Your task to perform on an android device: Go to calendar. Show me events next week Image 0: 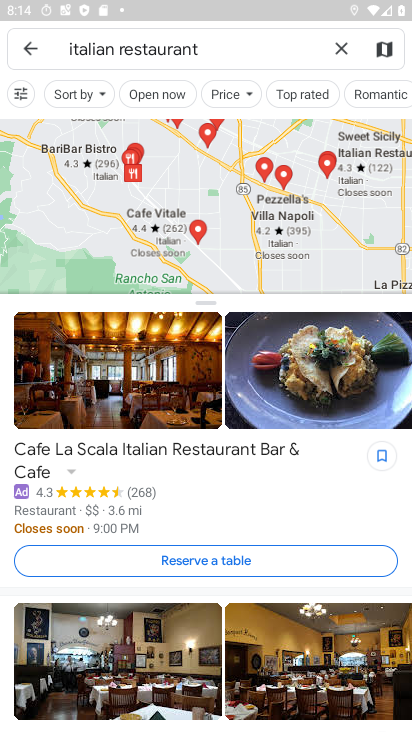
Step 0: press home button
Your task to perform on an android device: Go to calendar. Show me events next week Image 1: 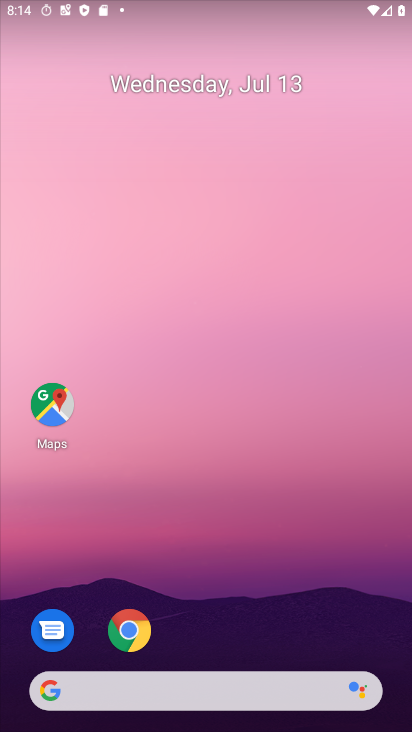
Step 1: drag from (353, 625) to (354, 129)
Your task to perform on an android device: Go to calendar. Show me events next week Image 2: 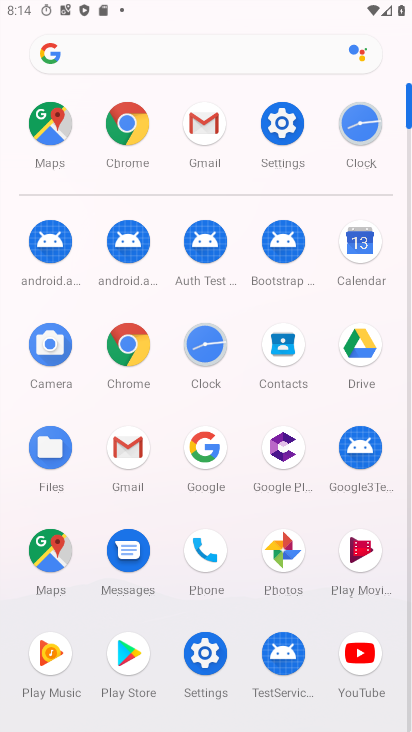
Step 2: click (360, 253)
Your task to perform on an android device: Go to calendar. Show me events next week Image 3: 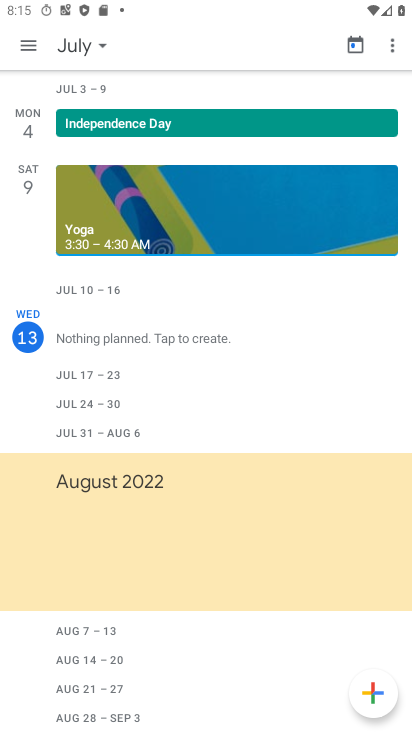
Step 3: click (104, 42)
Your task to perform on an android device: Go to calendar. Show me events next week Image 4: 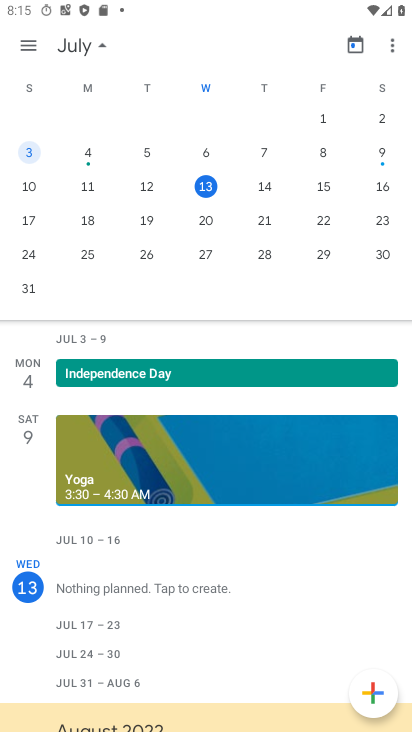
Step 4: click (89, 217)
Your task to perform on an android device: Go to calendar. Show me events next week Image 5: 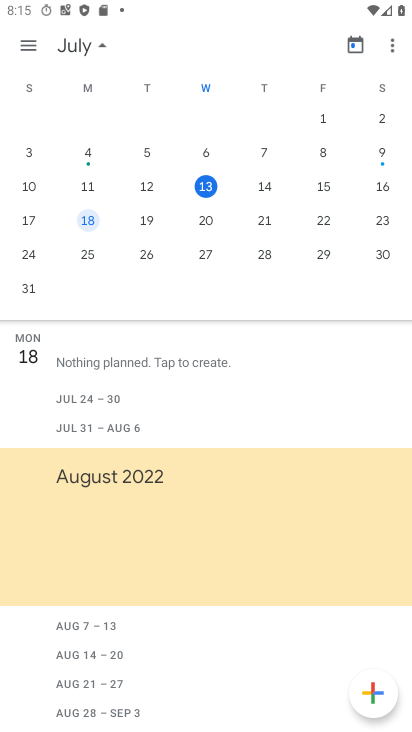
Step 5: task complete